Your task to perform on an android device: change alarm snooze length Image 0: 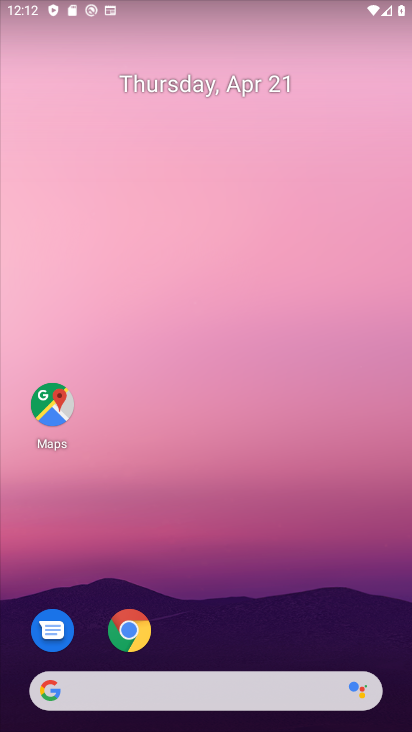
Step 0: drag from (284, 530) to (218, 23)
Your task to perform on an android device: change alarm snooze length Image 1: 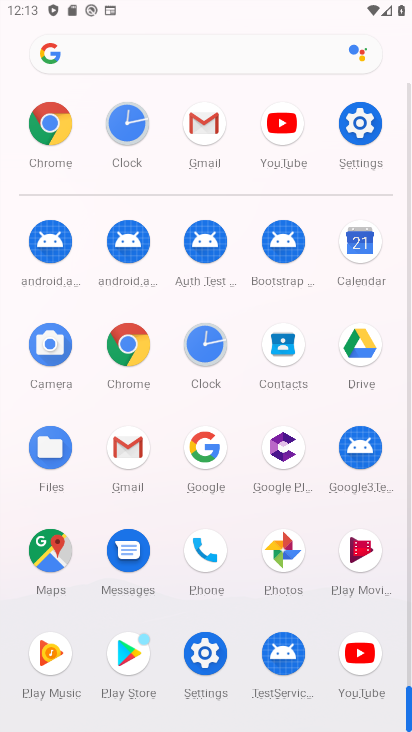
Step 1: click (146, 124)
Your task to perform on an android device: change alarm snooze length Image 2: 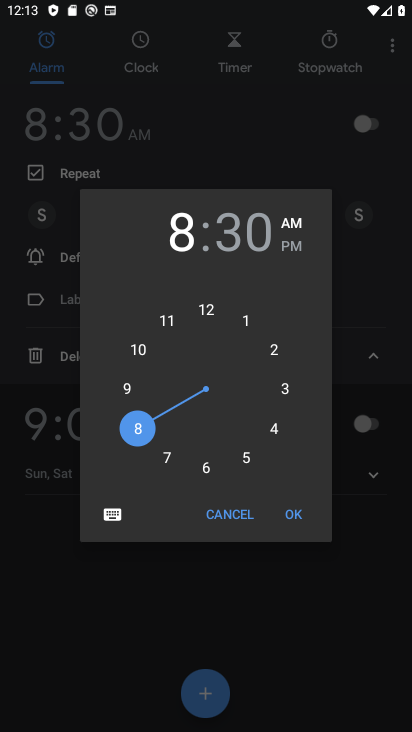
Step 2: click (383, 53)
Your task to perform on an android device: change alarm snooze length Image 3: 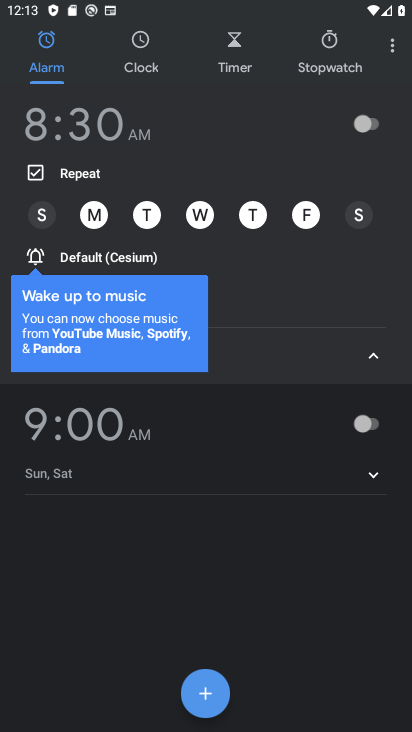
Step 3: click (393, 58)
Your task to perform on an android device: change alarm snooze length Image 4: 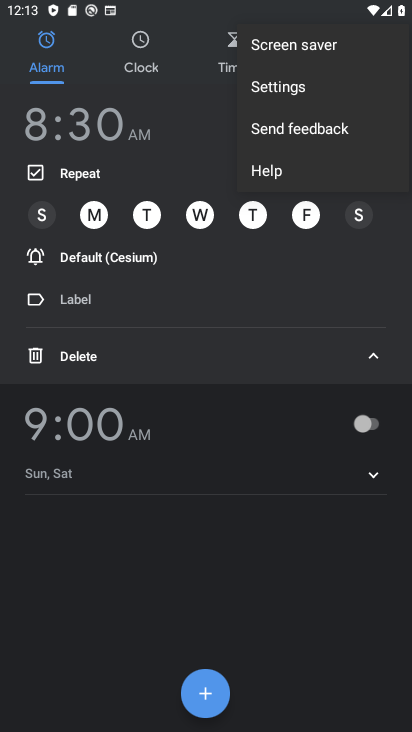
Step 4: click (273, 97)
Your task to perform on an android device: change alarm snooze length Image 5: 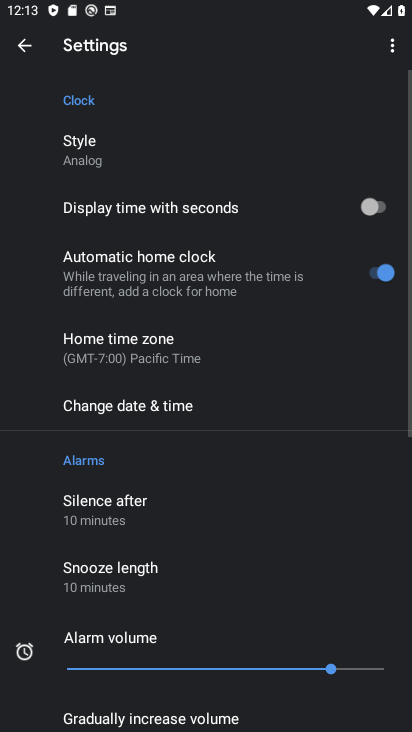
Step 5: drag from (196, 592) to (279, 267)
Your task to perform on an android device: change alarm snooze length Image 6: 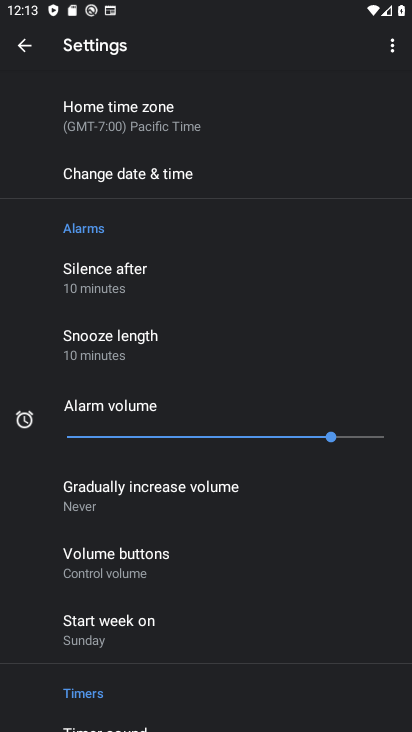
Step 6: click (140, 350)
Your task to perform on an android device: change alarm snooze length Image 7: 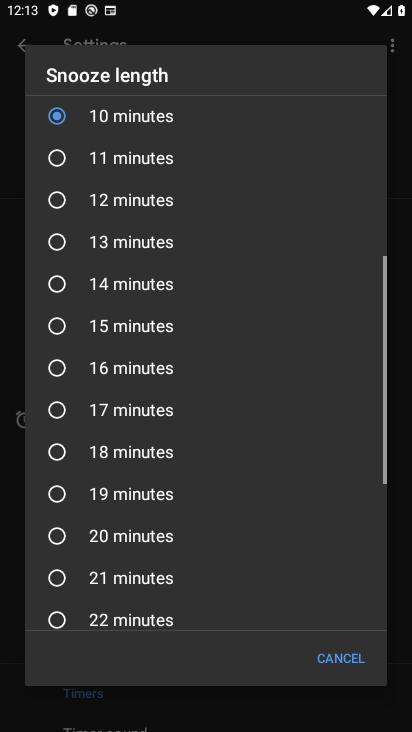
Step 7: click (74, 384)
Your task to perform on an android device: change alarm snooze length Image 8: 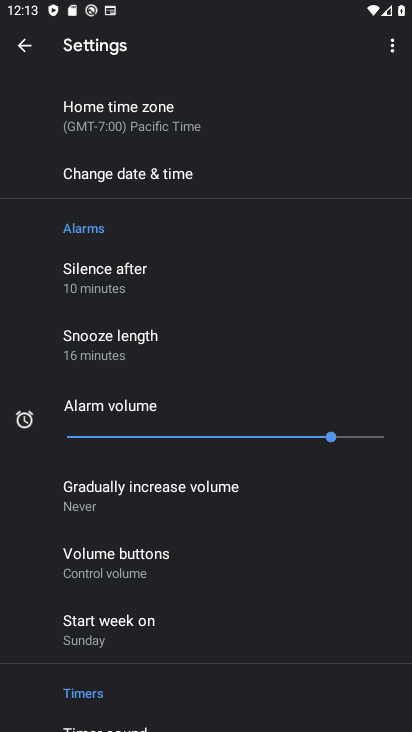
Step 8: task complete